Your task to perform on an android device: set the stopwatch Image 0: 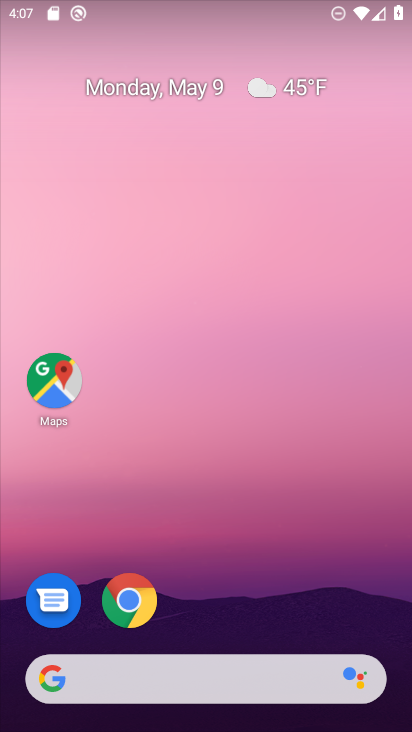
Step 0: drag from (283, 588) to (245, 34)
Your task to perform on an android device: set the stopwatch Image 1: 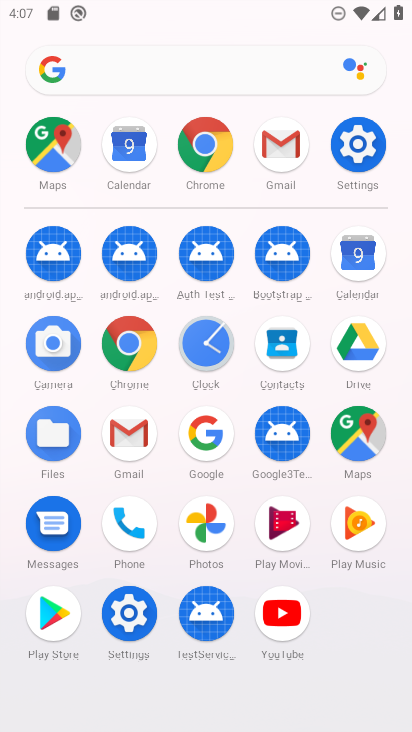
Step 1: click (204, 340)
Your task to perform on an android device: set the stopwatch Image 2: 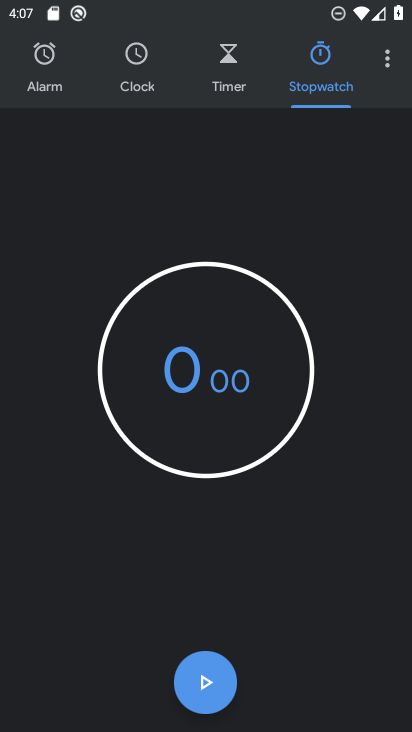
Step 2: click (198, 680)
Your task to perform on an android device: set the stopwatch Image 3: 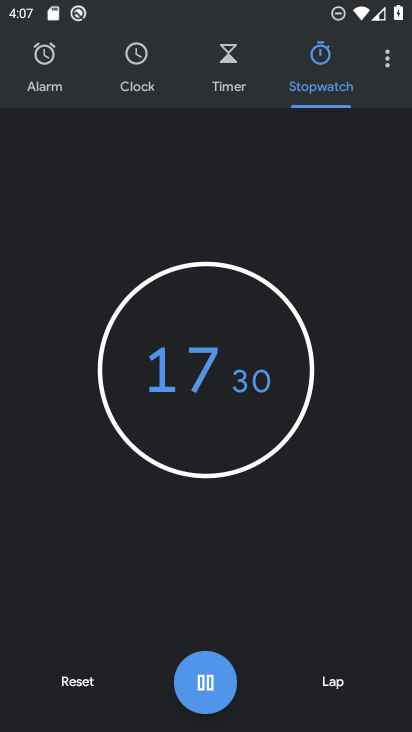
Step 3: task complete